Your task to perform on an android device: toggle show notifications on the lock screen Image 0: 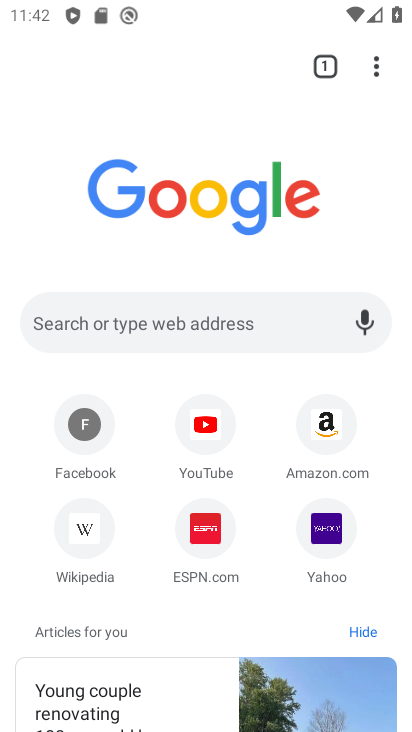
Step 0: press home button
Your task to perform on an android device: toggle show notifications on the lock screen Image 1: 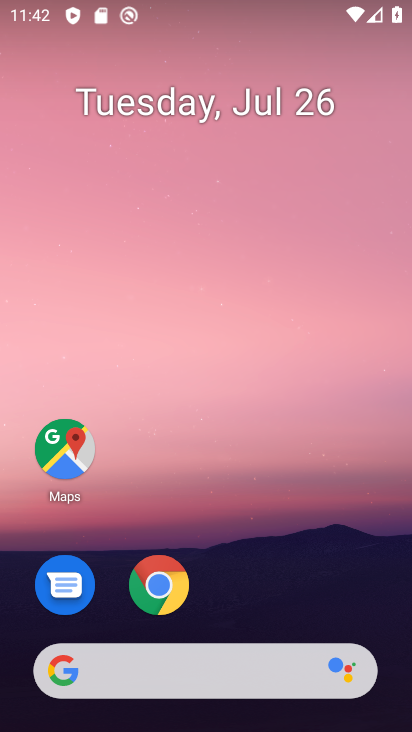
Step 1: drag from (258, 593) to (367, 23)
Your task to perform on an android device: toggle show notifications on the lock screen Image 2: 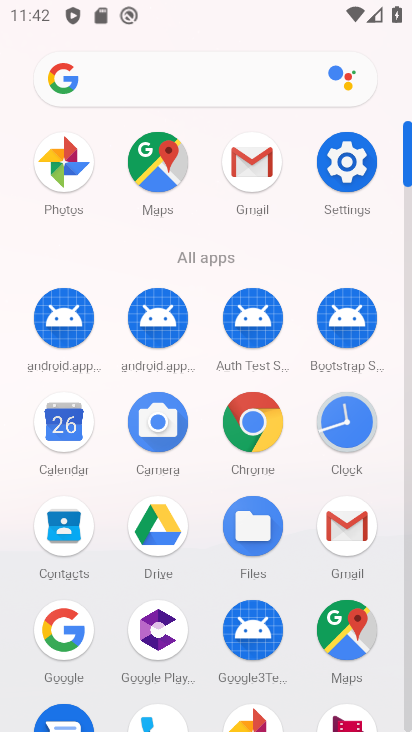
Step 2: click (337, 157)
Your task to perform on an android device: toggle show notifications on the lock screen Image 3: 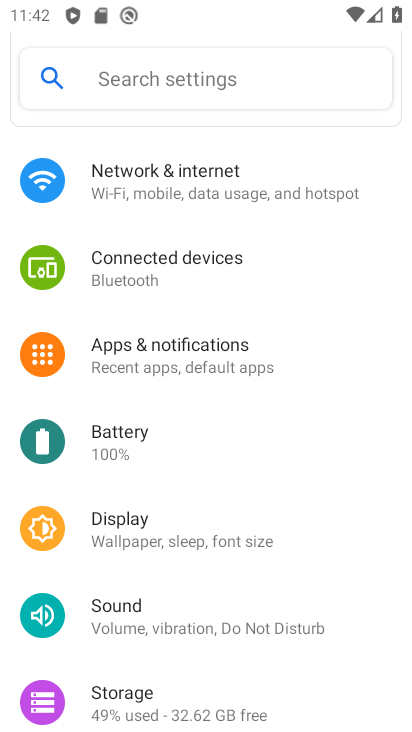
Step 3: click (197, 344)
Your task to perform on an android device: toggle show notifications on the lock screen Image 4: 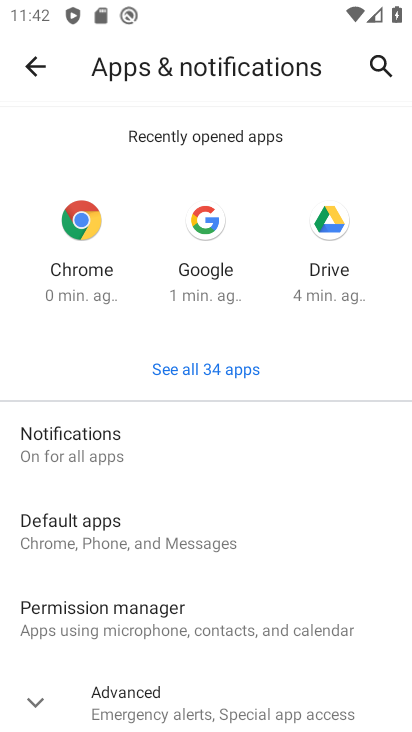
Step 4: click (103, 440)
Your task to perform on an android device: toggle show notifications on the lock screen Image 5: 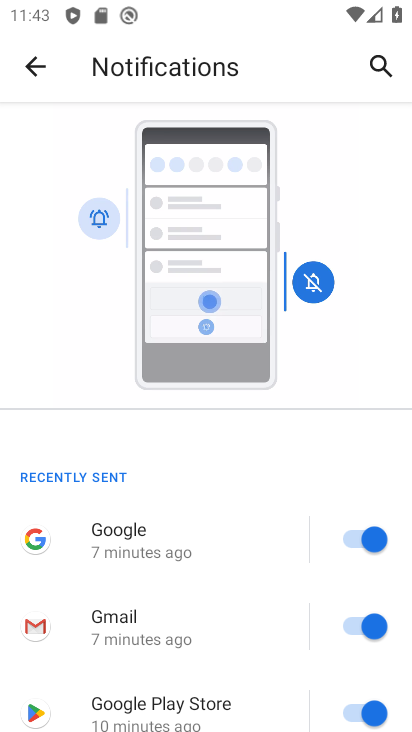
Step 5: drag from (222, 672) to (370, 69)
Your task to perform on an android device: toggle show notifications on the lock screen Image 6: 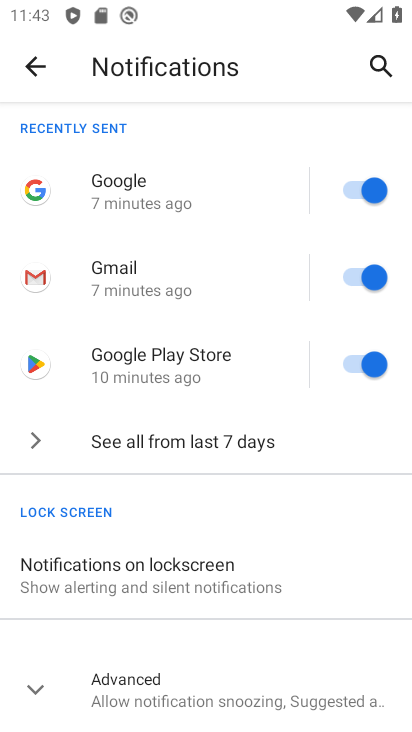
Step 6: click (166, 574)
Your task to perform on an android device: toggle show notifications on the lock screen Image 7: 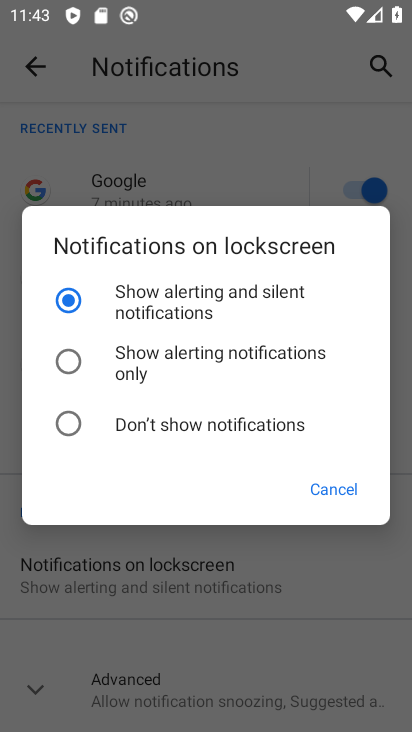
Step 7: click (73, 424)
Your task to perform on an android device: toggle show notifications on the lock screen Image 8: 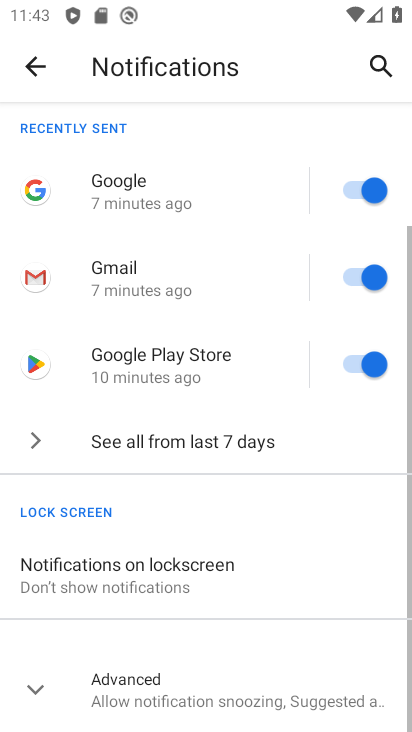
Step 8: task complete